Your task to perform on an android device: Turn off the flashlight Image 0: 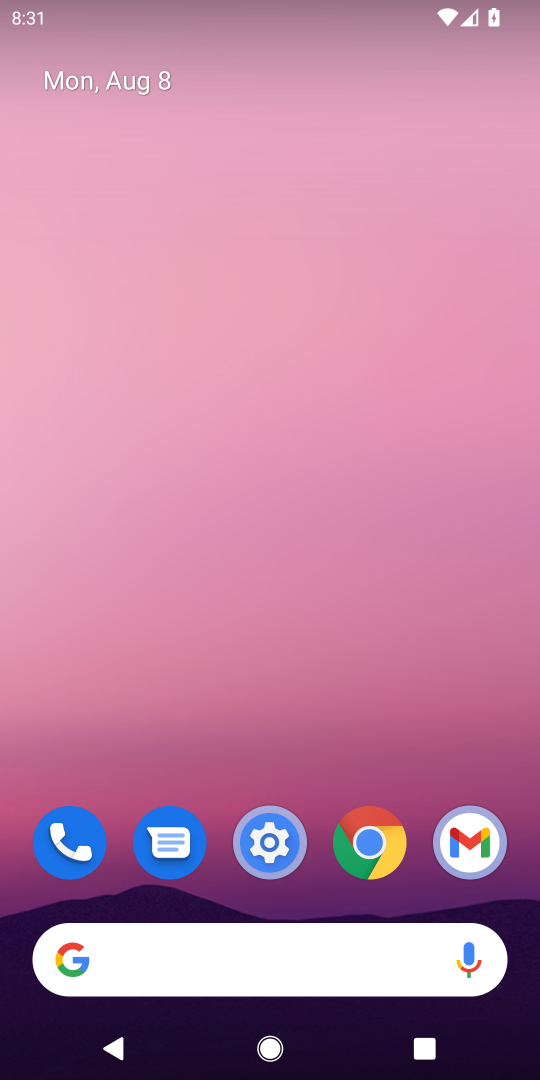
Step 0: click (270, 852)
Your task to perform on an android device: Turn off the flashlight Image 1: 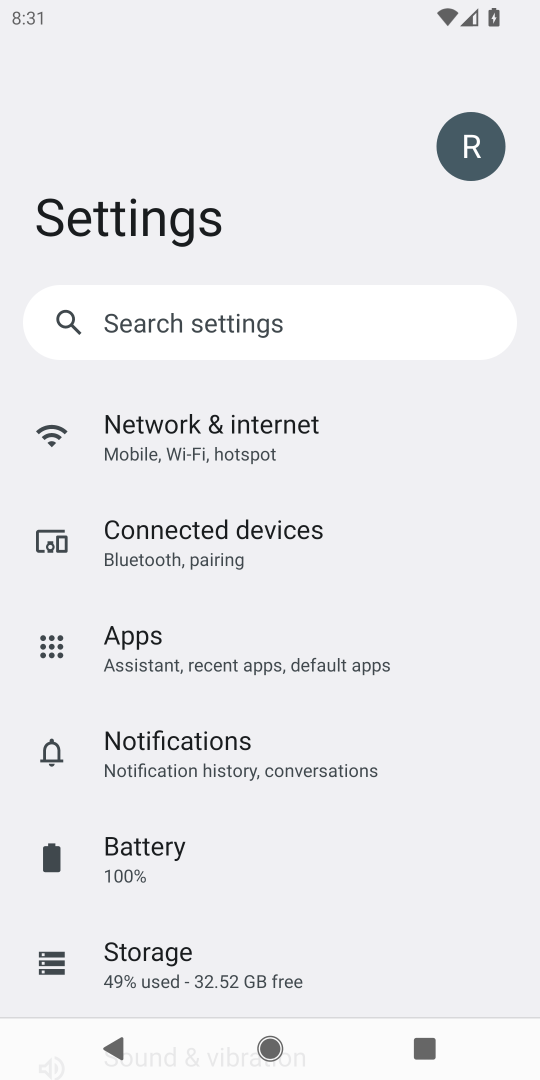
Step 1: task complete